Your task to perform on an android device: toggle priority inbox in the gmail app Image 0: 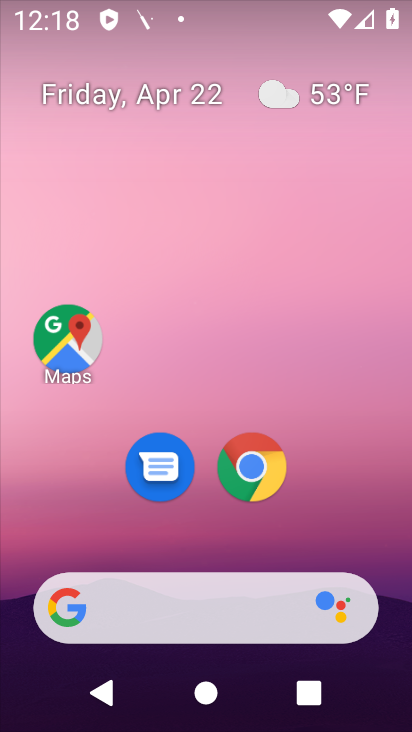
Step 0: drag from (370, 555) to (350, 191)
Your task to perform on an android device: toggle priority inbox in the gmail app Image 1: 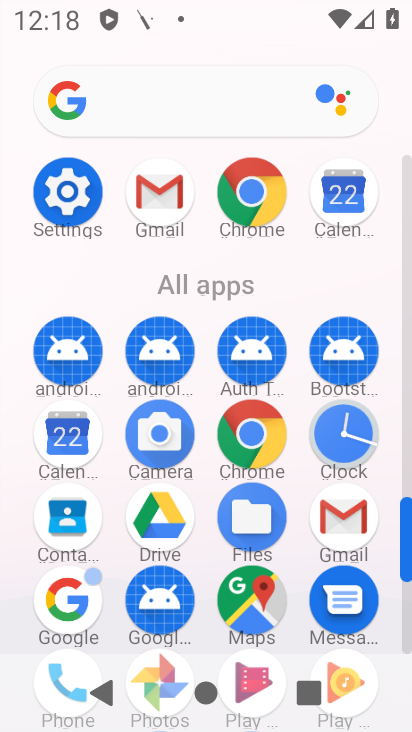
Step 1: click (405, 623)
Your task to perform on an android device: toggle priority inbox in the gmail app Image 2: 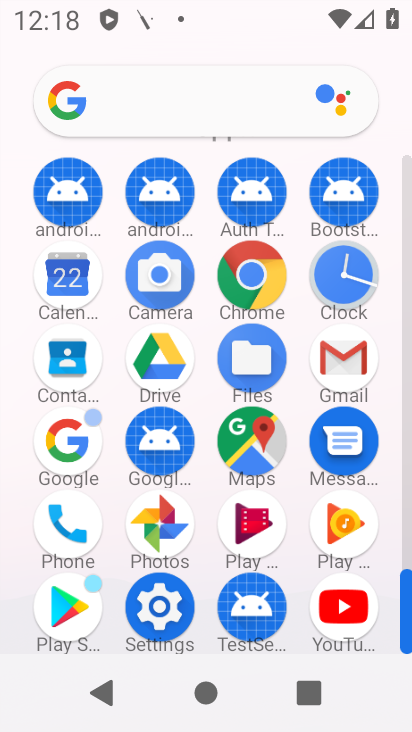
Step 2: click (345, 355)
Your task to perform on an android device: toggle priority inbox in the gmail app Image 3: 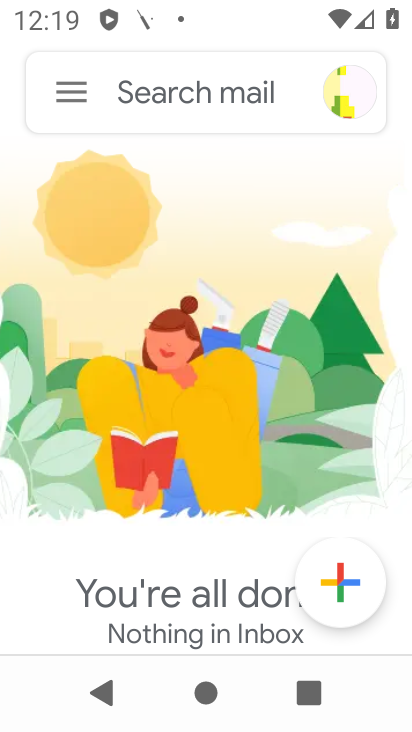
Step 3: click (63, 85)
Your task to perform on an android device: toggle priority inbox in the gmail app Image 4: 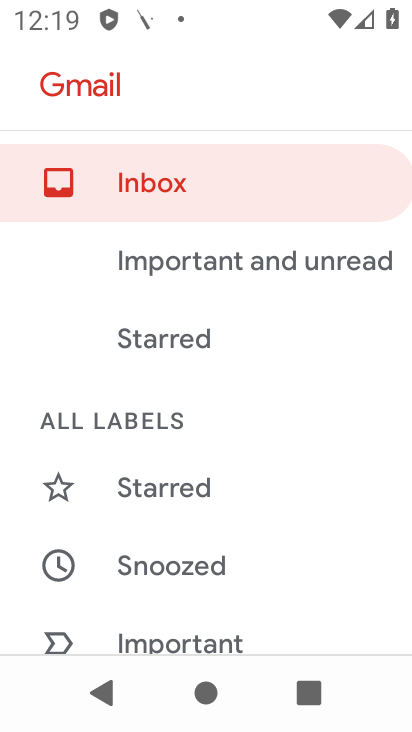
Step 4: drag from (286, 477) to (270, 190)
Your task to perform on an android device: toggle priority inbox in the gmail app Image 5: 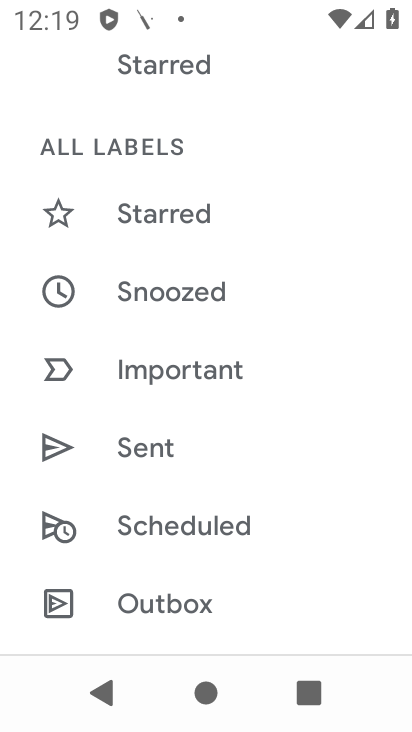
Step 5: drag from (278, 539) to (278, 274)
Your task to perform on an android device: toggle priority inbox in the gmail app Image 6: 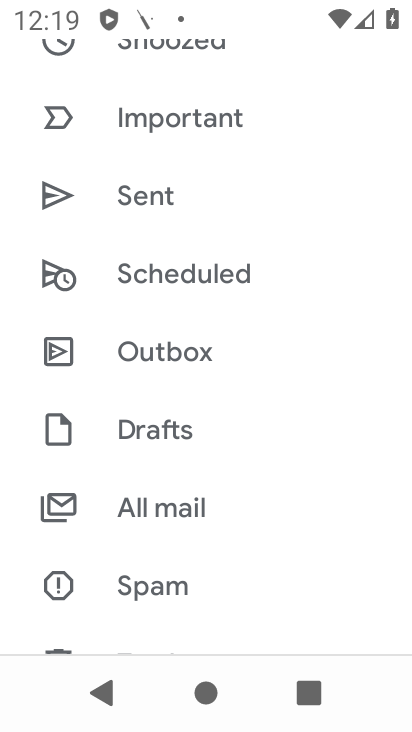
Step 6: drag from (276, 572) to (295, 254)
Your task to perform on an android device: toggle priority inbox in the gmail app Image 7: 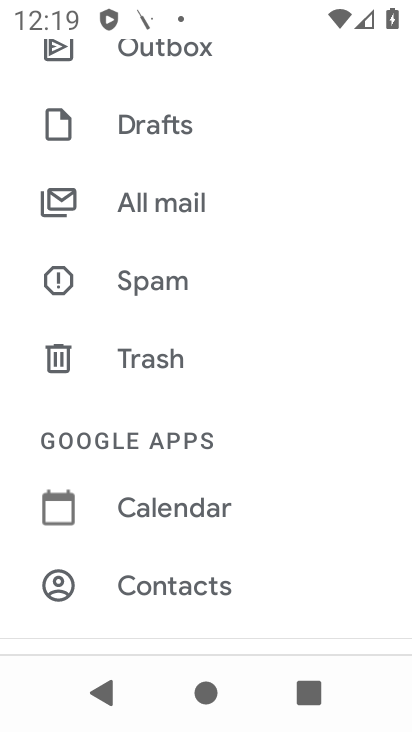
Step 7: drag from (273, 523) to (234, 187)
Your task to perform on an android device: toggle priority inbox in the gmail app Image 8: 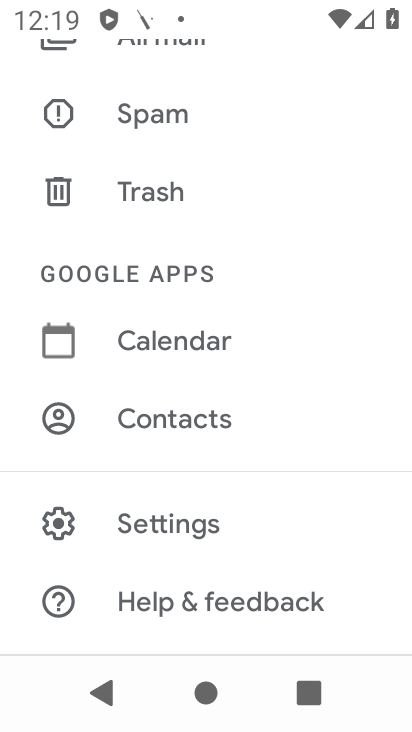
Step 8: click (153, 516)
Your task to perform on an android device: toggle priority inbox in the gmail app Image 9: 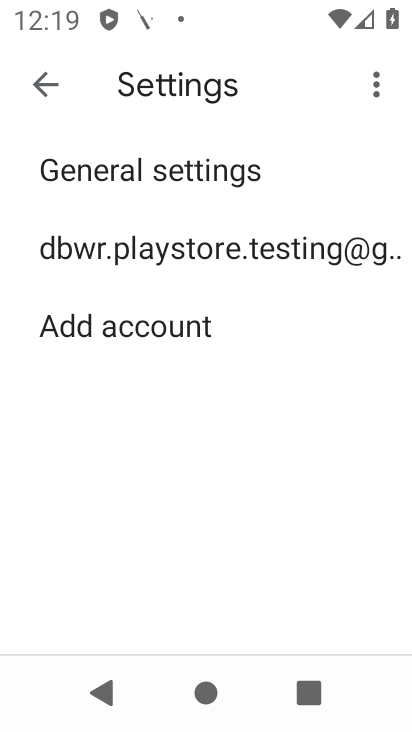
Step 9: click (180, 253)
Your task to perform on an android device: toggle priority inbox in the gmail app Image 10: 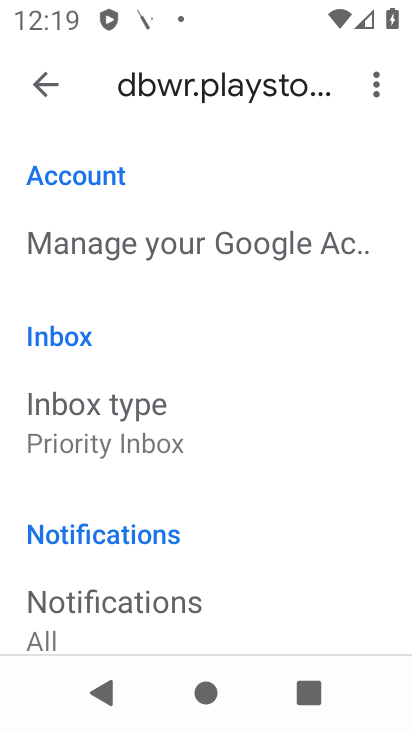
Step 10: click (80, 424)
Your task to perform on an android device: toggle priority inbox in the gmail app Image 11: 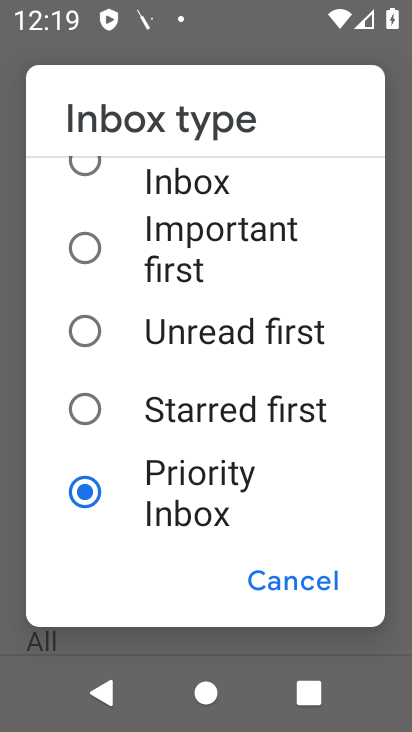
Step 11: click (80, 248)
Your task to perform on an android device: toggle priority inbox in the gmail app Image 12: 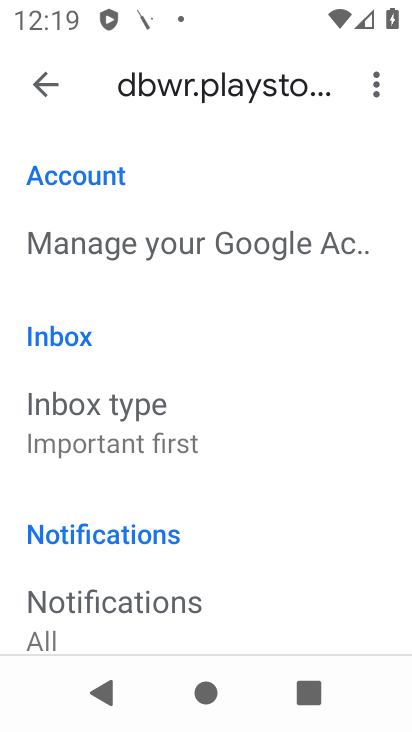
Step 12: task complete